Your task to perform on an android device: Open calendar and show me the third week of next month Image 0: 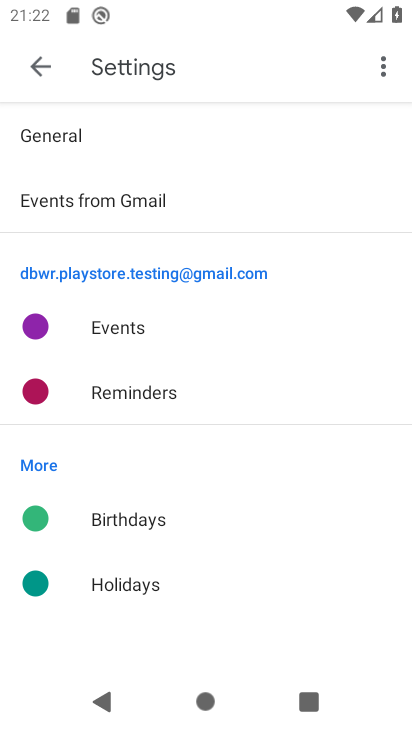
Step 0: press home button
Your task to perform on an android device: Open calendar and show me the third week of next month Image 1: 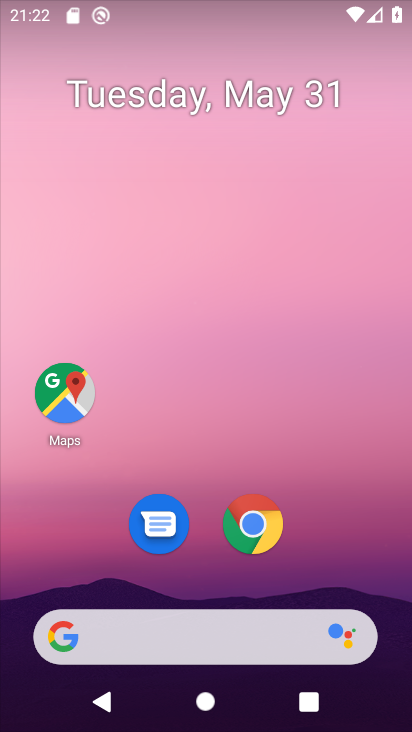
Step 1: drag from (207, 462) to (281, 0)
Your task to perform on an android device: Open calendar and show me the third week of next month Image 2: 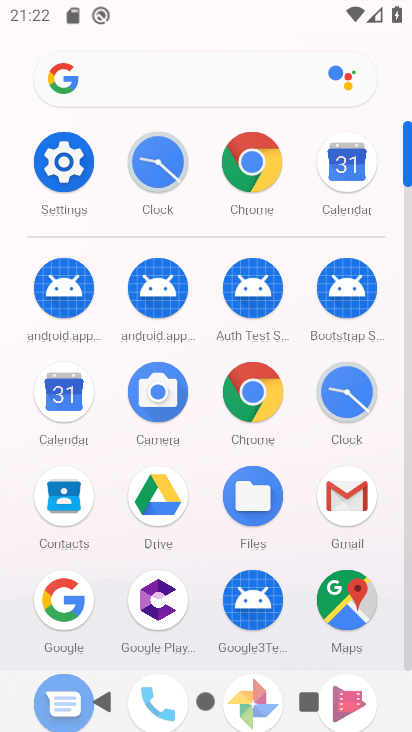
Step 2: click (351, 176)
Your task to perform on an android device: Open calendar and show me the third week of next month Image 3: 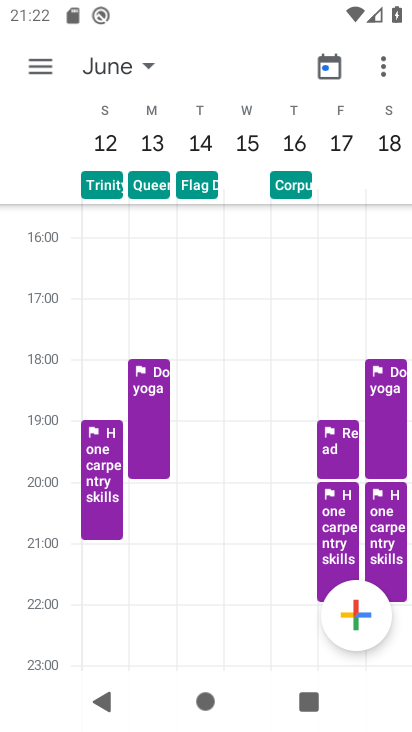
Step 3: task complete